Your task to perform on an android device: clear history in the chrome app Image 0: 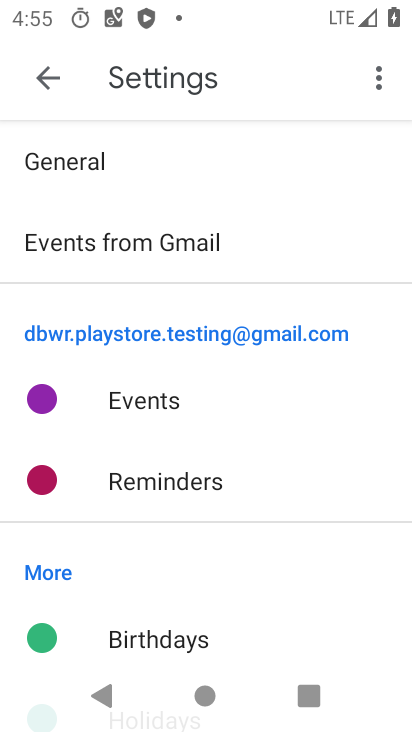
Step 0: press home button
Your task to perform on an android device: clear history in the chrome app Image 1: 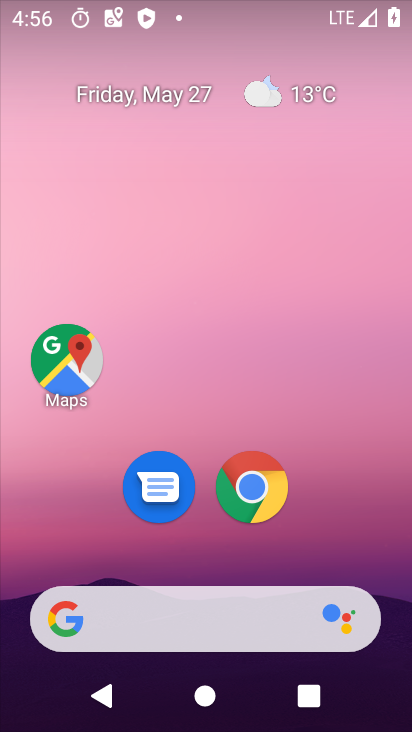
Step 1: click (248, 492)
Your task to perform on an android device: clear history in the chrome app Image 2: 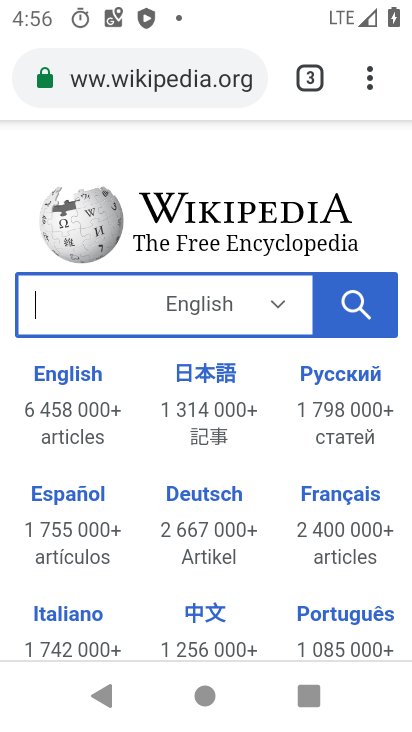
Step 2: drag from (375, 65) to (217, 423)
Your task to perform on an android device: clear history in the chrome app Image 3: 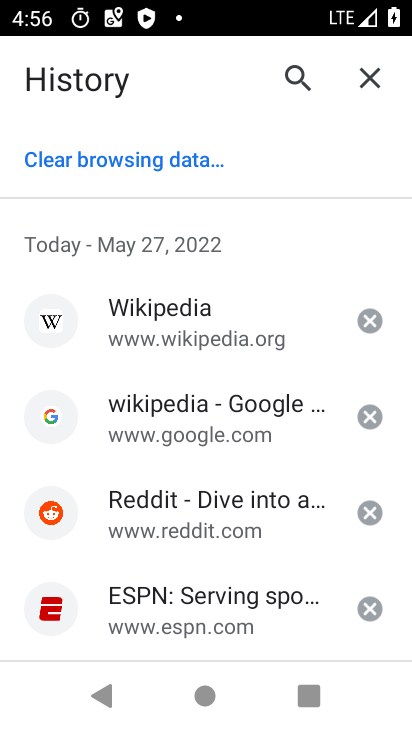
Step 3: click (120, 158)
Your task to perform on an android device: clear history in the chrome app Image 4: 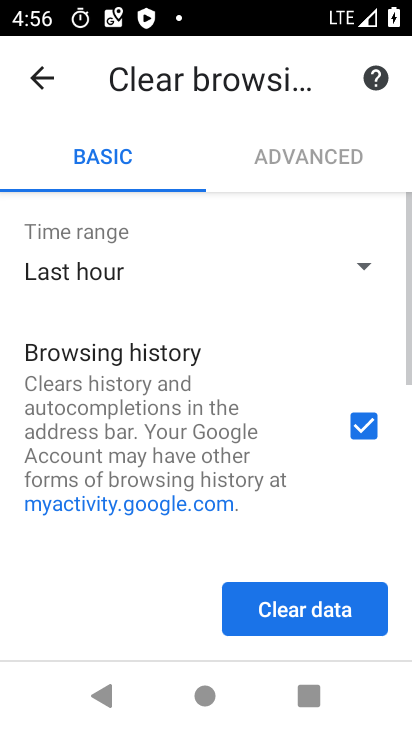
Step 4: click (119, 269)
Your task to perform on an android device: clear history in the chrome app Image 5: 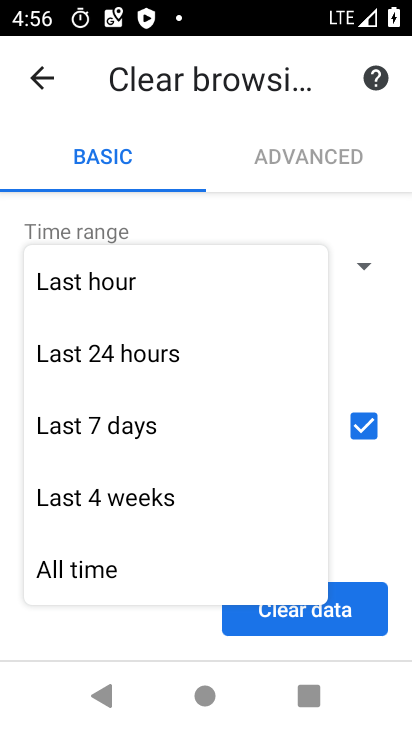
Step 5: click (167, 567)
Your task to perform on an android device: clear history in the chrome app Image 6: 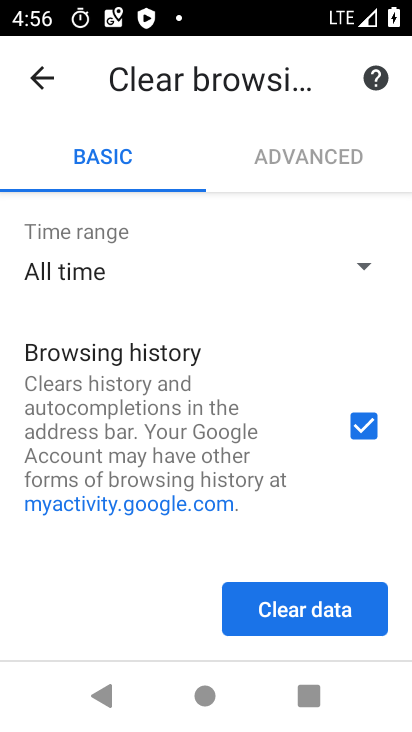
Step 6: click (334, 609)
Your task to perform on an android device: clear history in the chrome app Image 7: 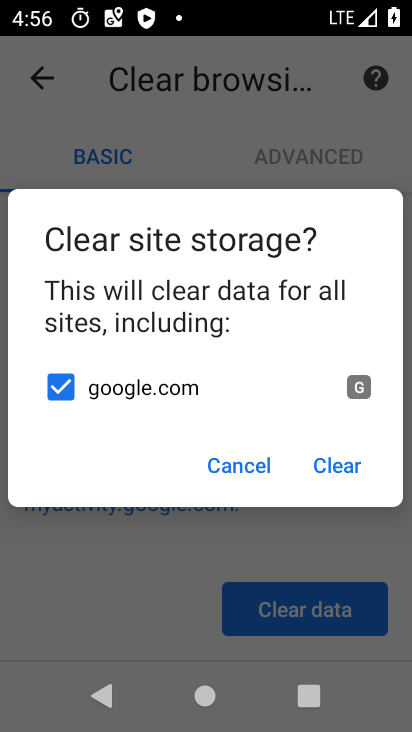
Step 7: click (352, 461)
Your task to perform on an android device: clear history in the chrome app Image 8: 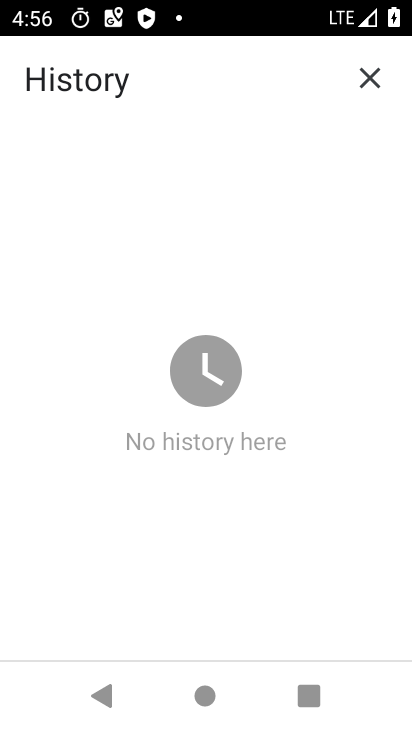
Step 8: task complete